Your task to perform on an android device: Toggle the flashlight Image 0: 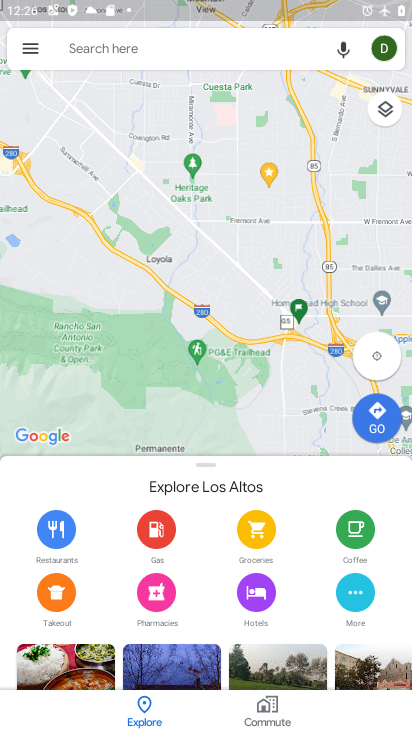
Step 0: press home button
Your task to perform on an android device: Toggle the flashlight Image 1: 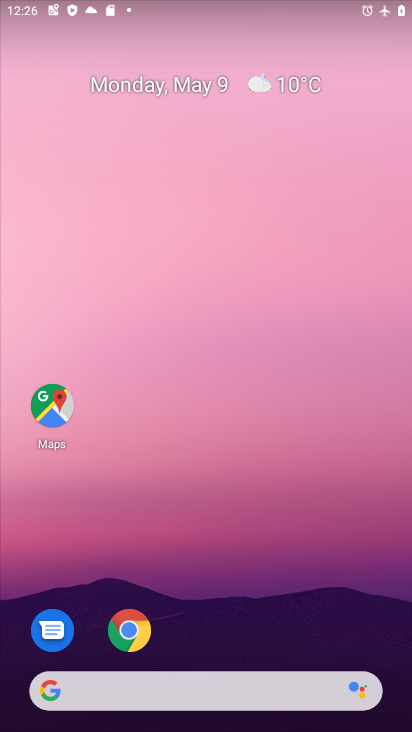
Step 1: drag from (303, 609) to (169, 63)
Your task to perform on an android device: Toggle the flashlight Image 2: 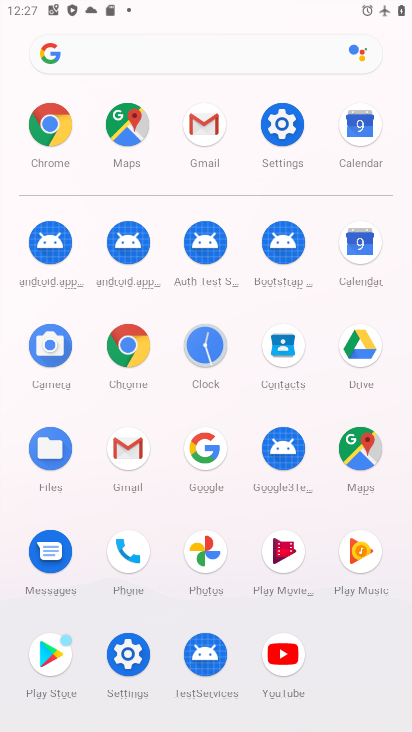
Step 2: click (111, 648)
Your task to perform on an android device: Toggle the flashlight Image 3: 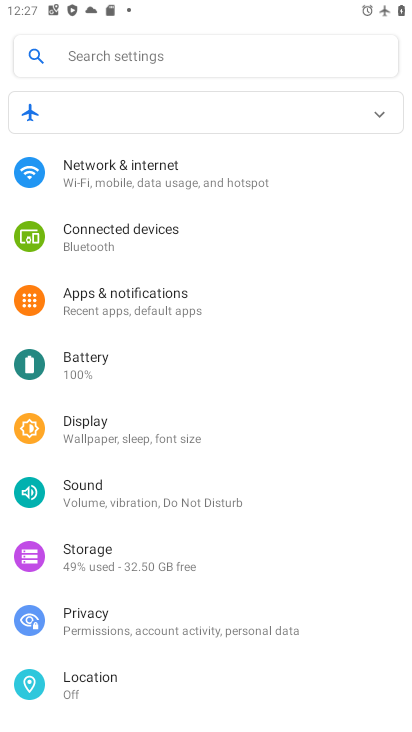
Step 3: task complete